Your task to perform on an android device: Go to calendar. Show me events next week Image 0: 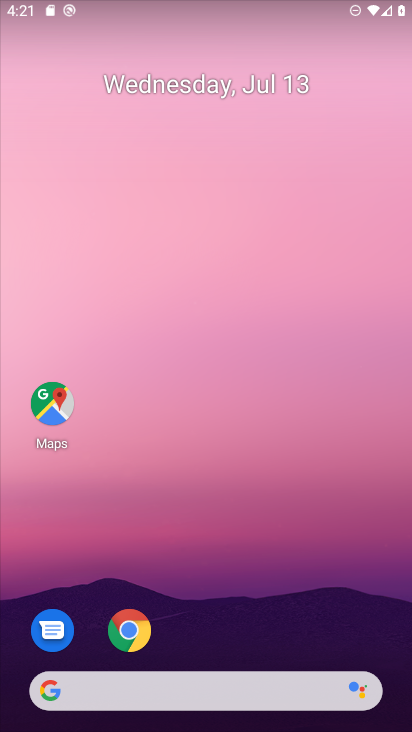
Step 0: drag from (194, 626) to (188, 302)
Your task to perform on an android device: Go to calendar. Show me events next week Image 1: 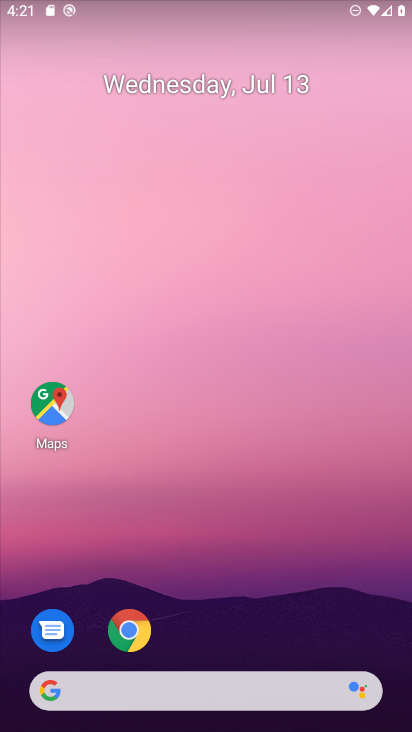
Step 1: drag from (206, 611) to (123, 84)
Your task to perform on an android device: Go to calendar. Show me events next week Image 2: 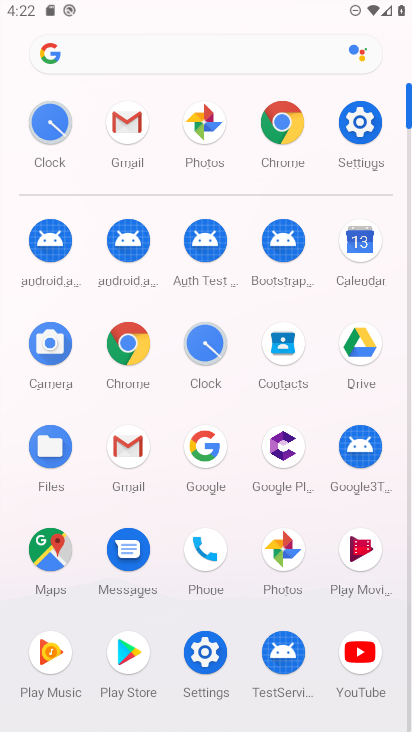
Step 2: click (366, 245)
Your task to perform on an android device: Go to calendar. Show me events next week Image 3: 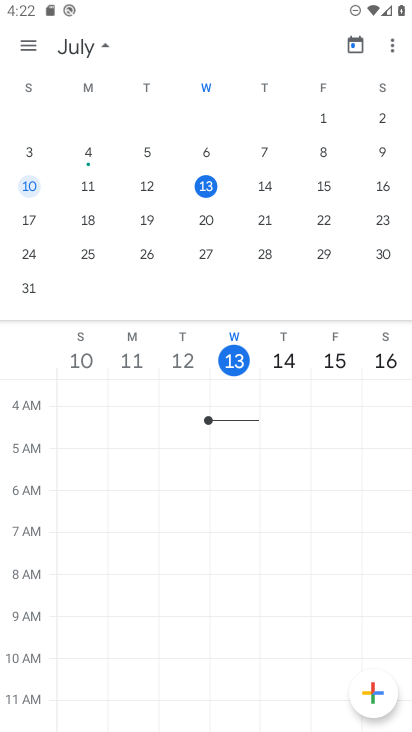
Step 3: click (37, 219)
Your task to perform on an android device: Go to calendar. Show me events next week Image 4: 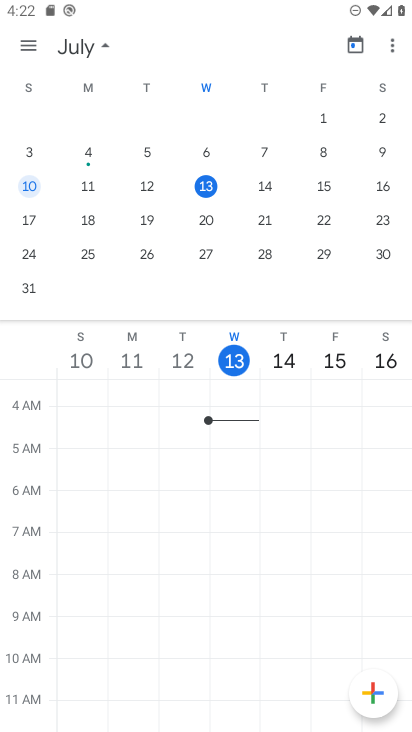
Step 4: click (37, 219)
Your task to perform on an android device: Go to calendar. Show me events next week Image 5: 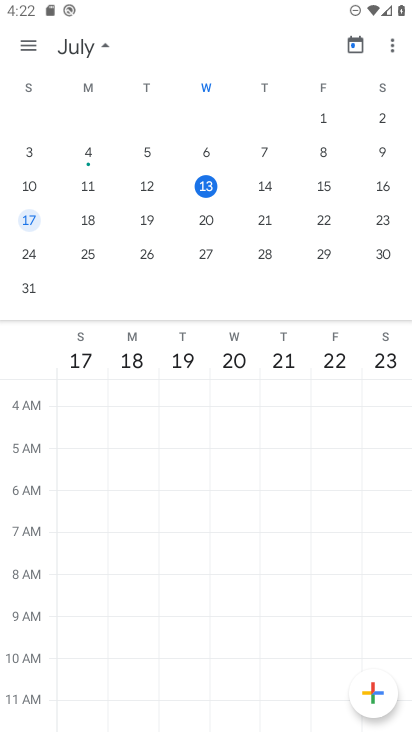
Step 5: task complete